Your task to perform on an android device: open app "Google Chrome" (install if not already installed) Image 0: 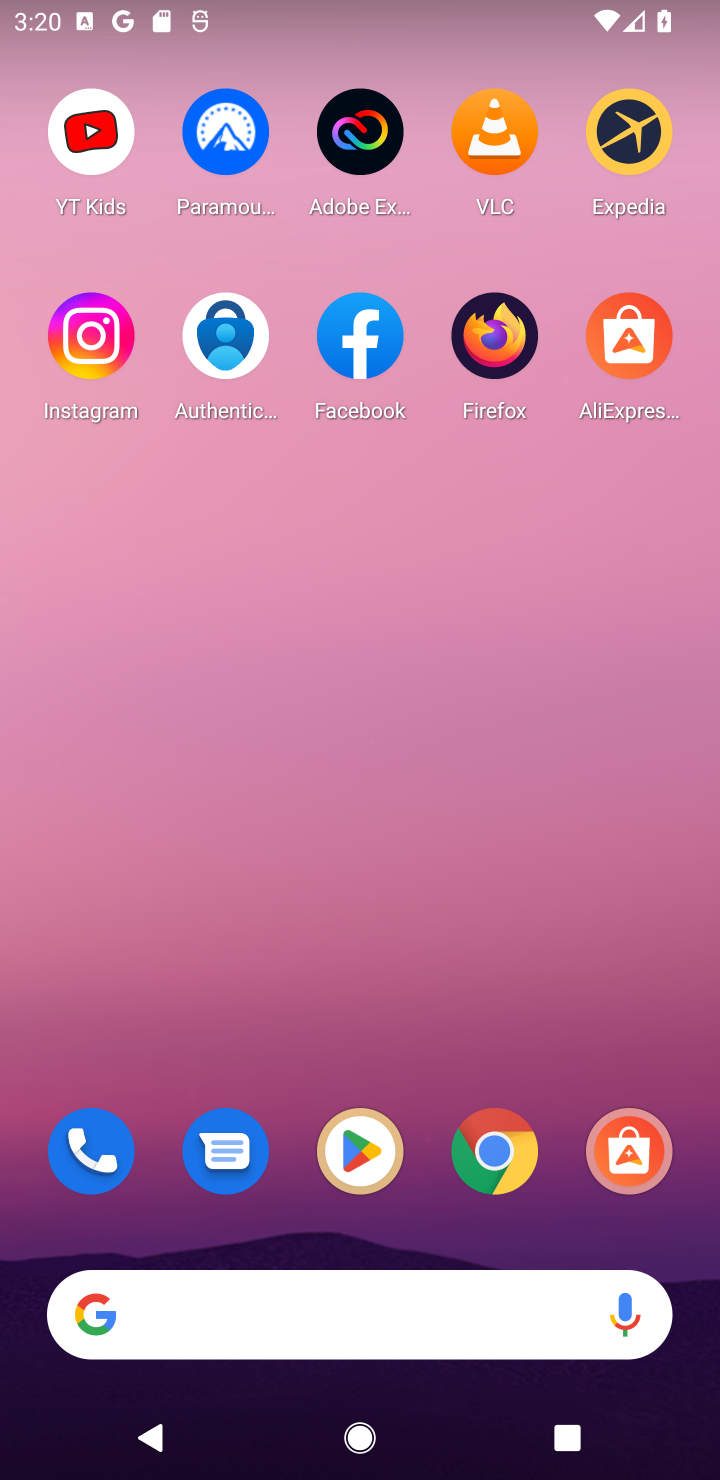
Step 0: press home button
Your task to perform on an android device: open app "Google Chrome" (install if not already installed) Image 1: 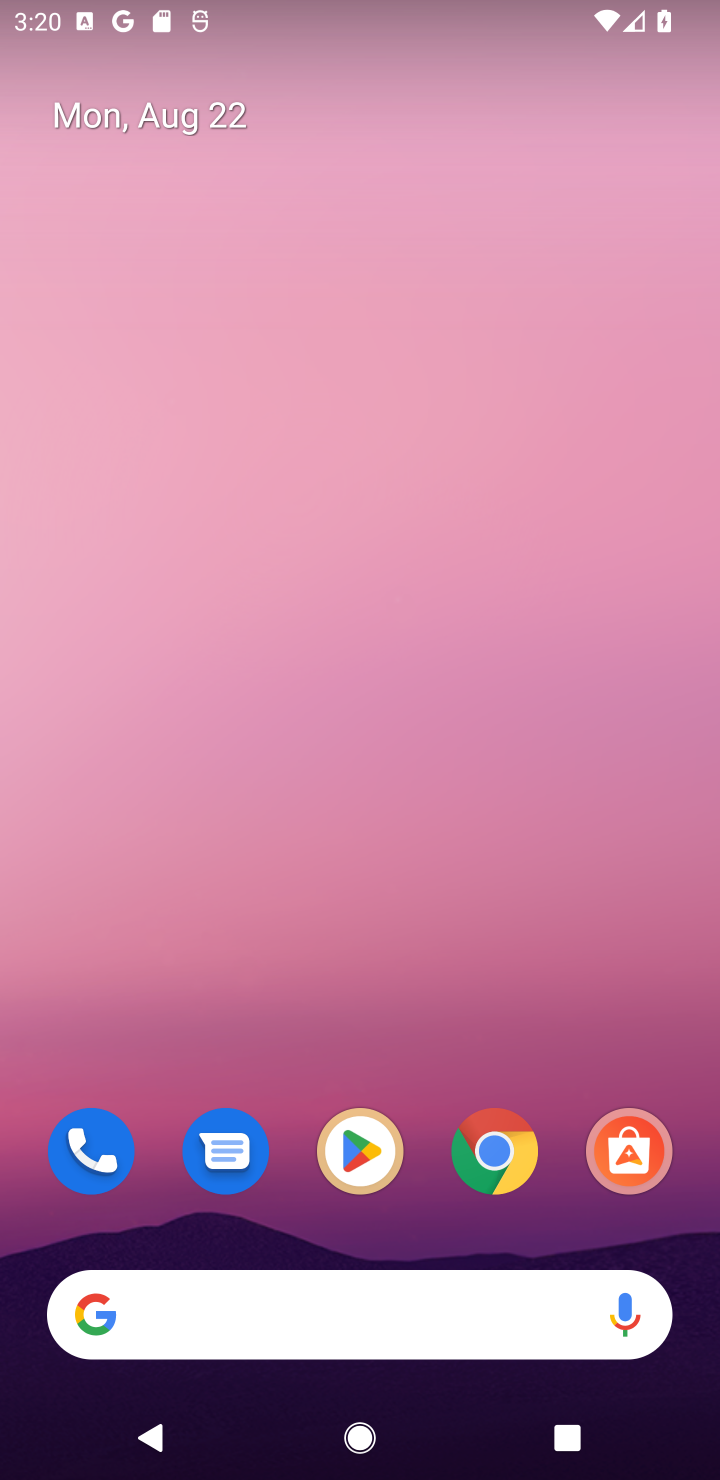
Step 1: click (351, 1142)
Your task to perform on an android device: open app "Google Chrome" (install if not already installed) Image 2: 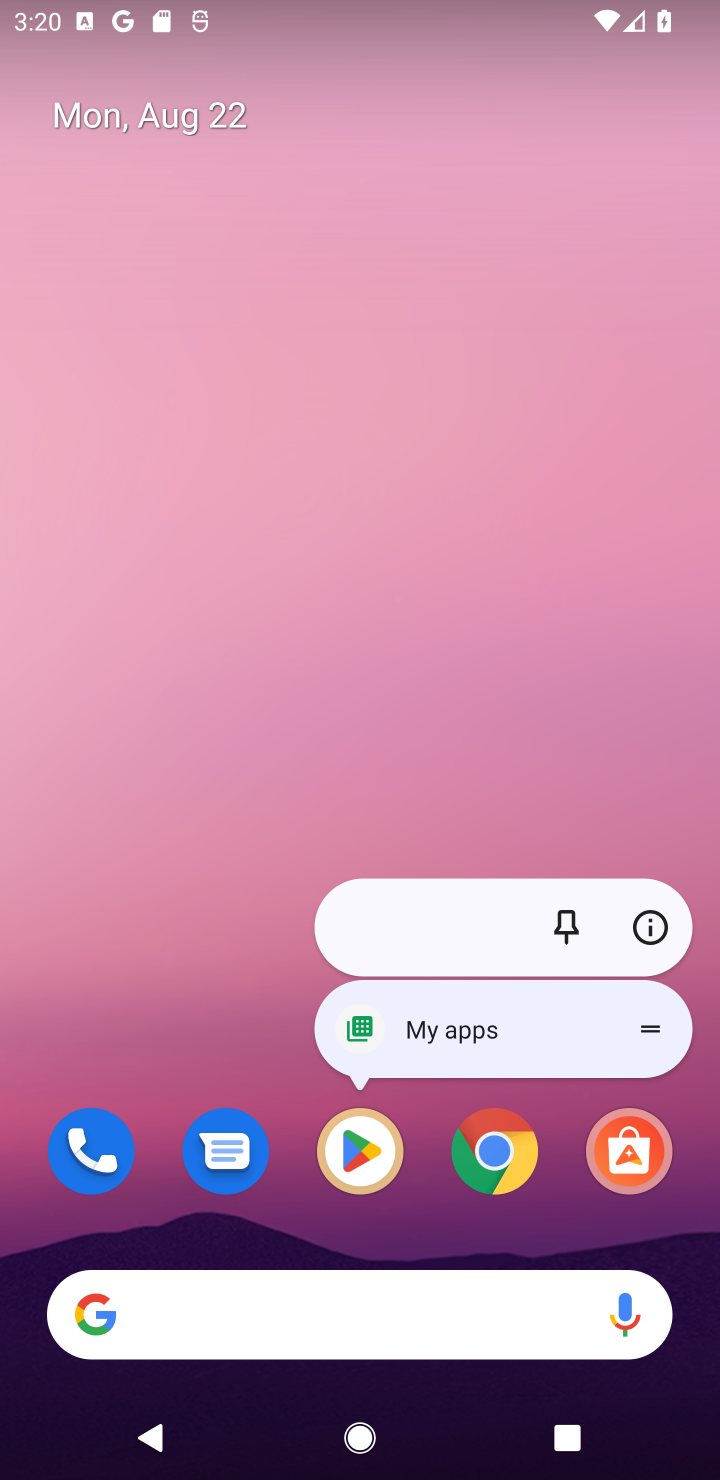
Step 2: click (361, 1162)
Your task to perform on an android device: open app "Google Chrome" (install if not already installed) Image 3: 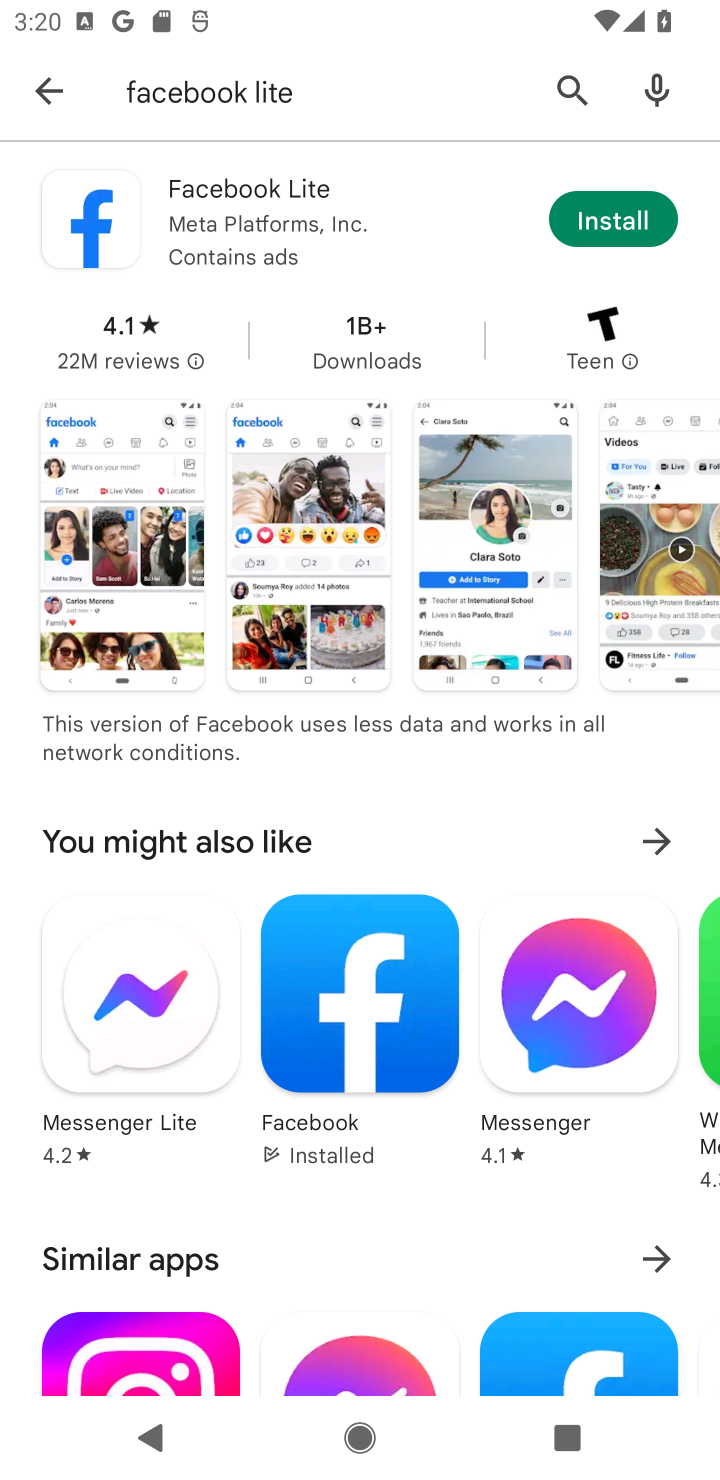
Step 3: click (564, 90)
Your task to perform on an android device: open app "Google Chrome" (install if not already installed) Image 4: 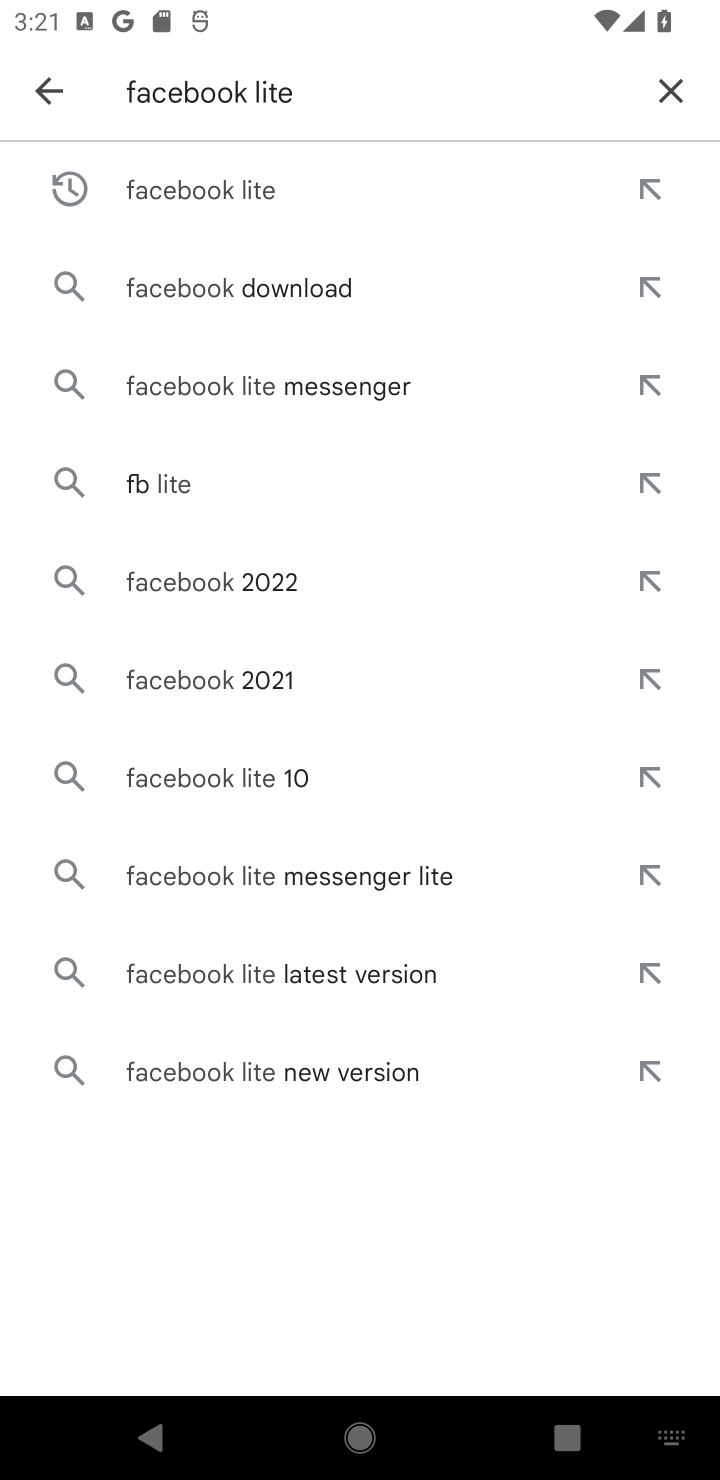
Step 4: click (667, 82)
Your task to perform on an android device: open app "Google Chrome" (install if not already installed) Image 5: 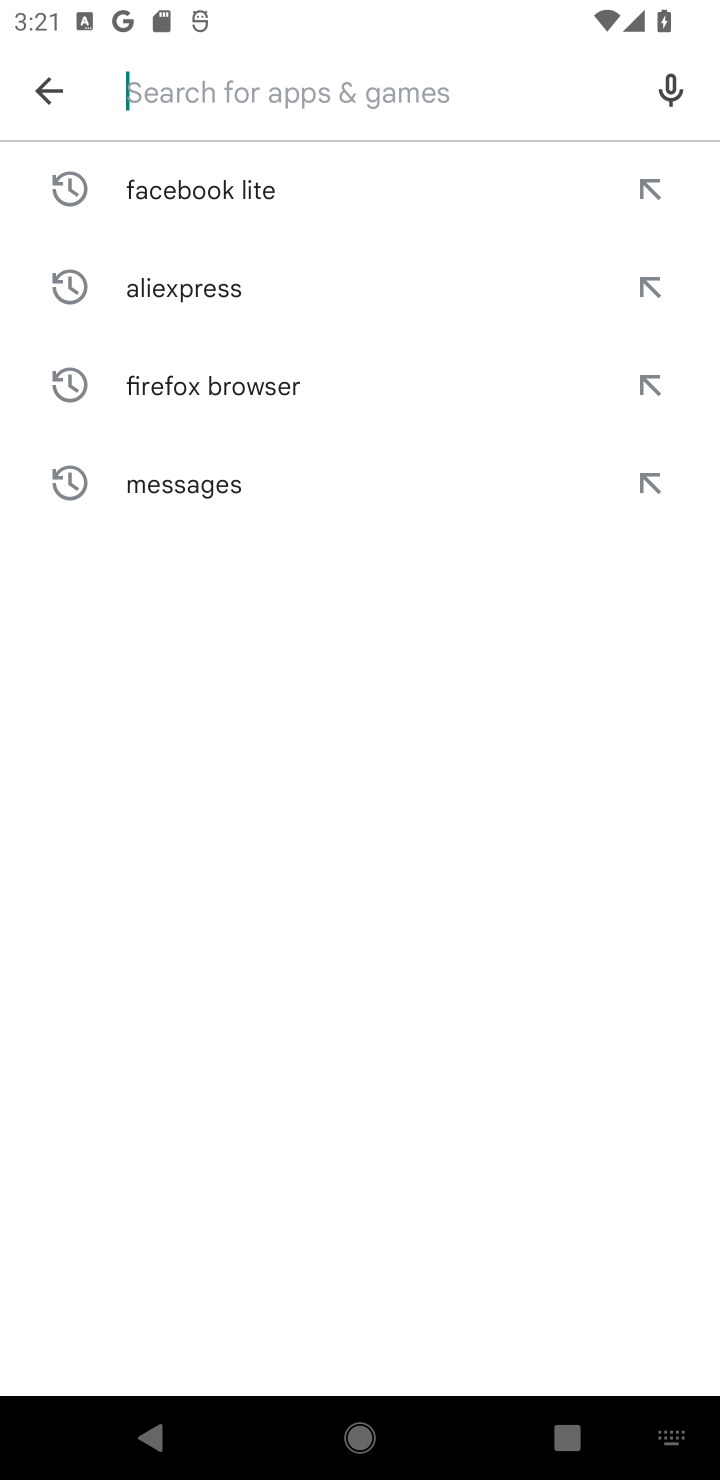
Step 5: type "Google Chrome"
Your task to perform on an android device: open app "Google Chrome" (install if not already installed) Image 6: 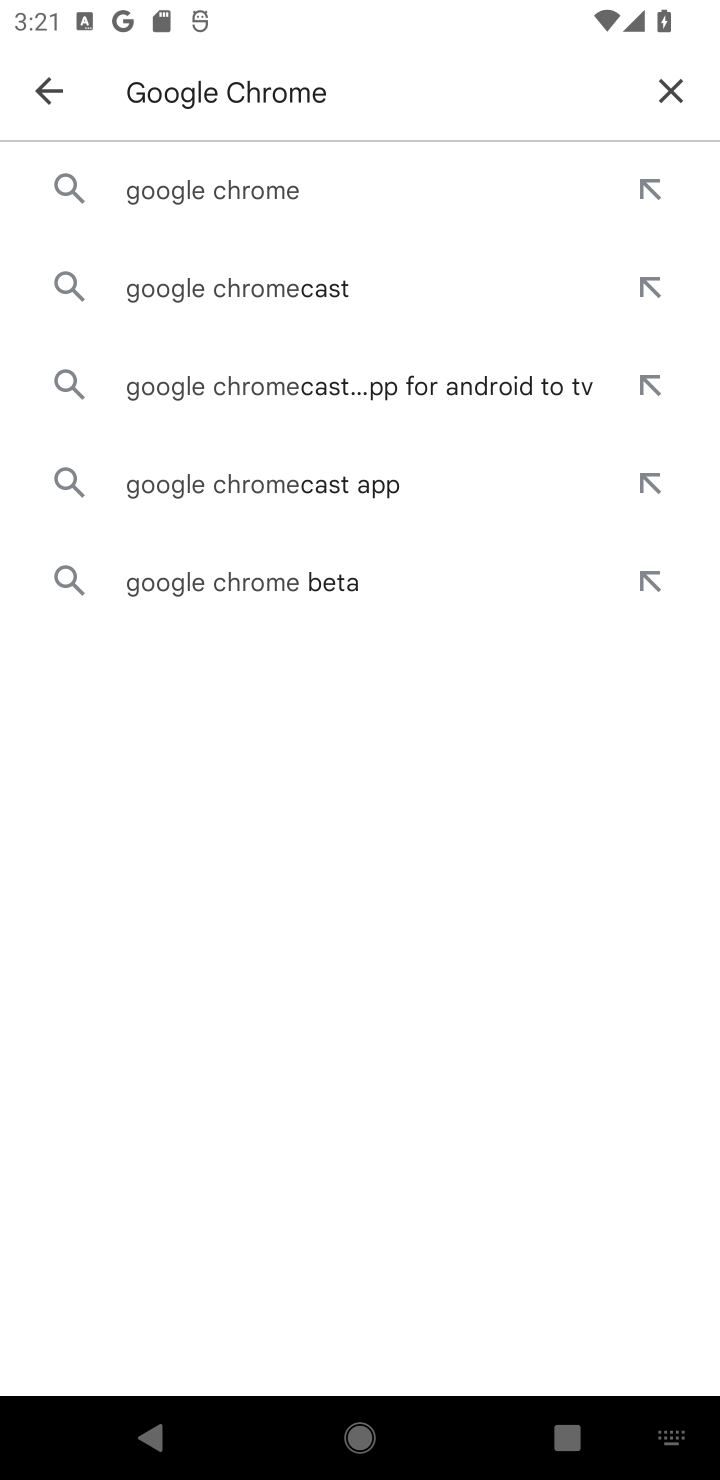
Step 6: click (231, 205)
Your task to perform on an android device: open app "Google Chrome" (install if not already installed) Image 7: 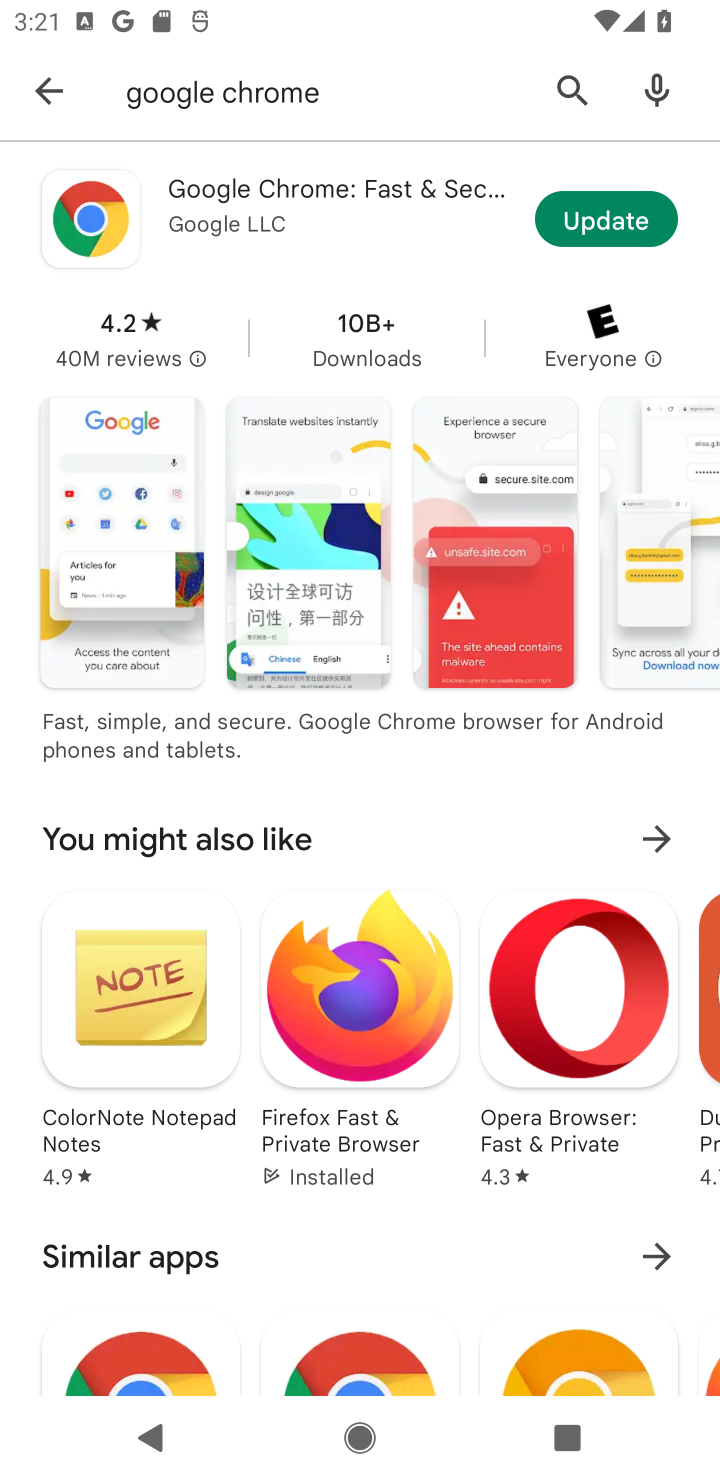
Step 7: click (374, 218)
Your task to perform on an android device: open app "Google Chrome" (install if not already installed) Image 8: 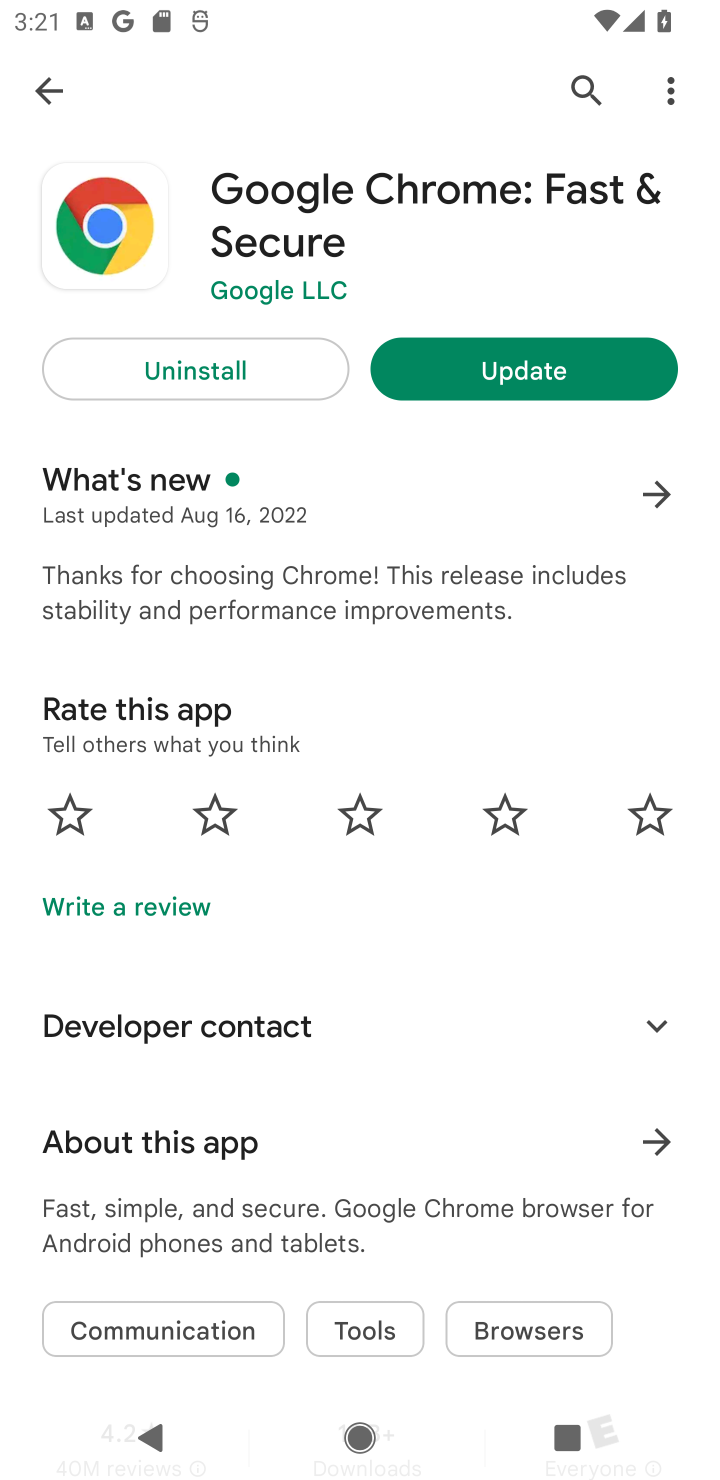
Step 8: task complete